Your task to perform on an android device: Empty the shopping cart on costco. Search for macbook on costco, select the first entry, and add it to the cart. Image 0: 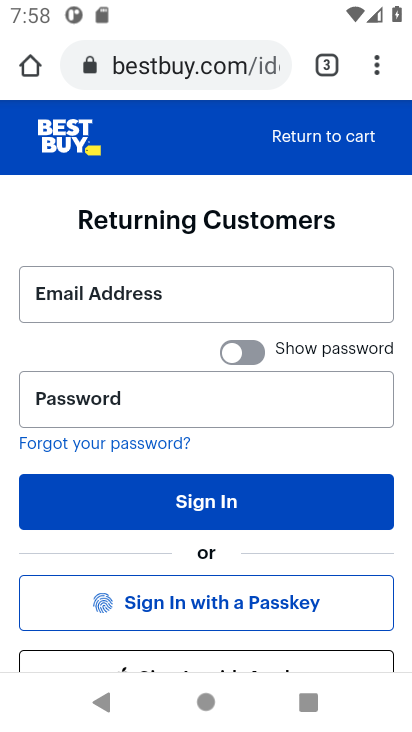
Step 0: click (222, 67)
Your task to perform on an android device: Empty the shopping cart on costco. Search for macbook on costco, select the first entry, and add it to the cart. Image 1: 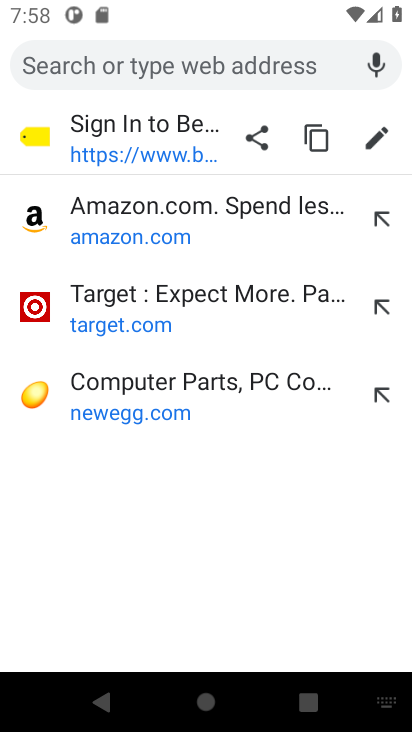
Step 1: type "costco"
Your task to perform on an android device: Empty the shopping cart on costco. Search for macbook on costco, select the first entry, and add it to the cart. Image 2: 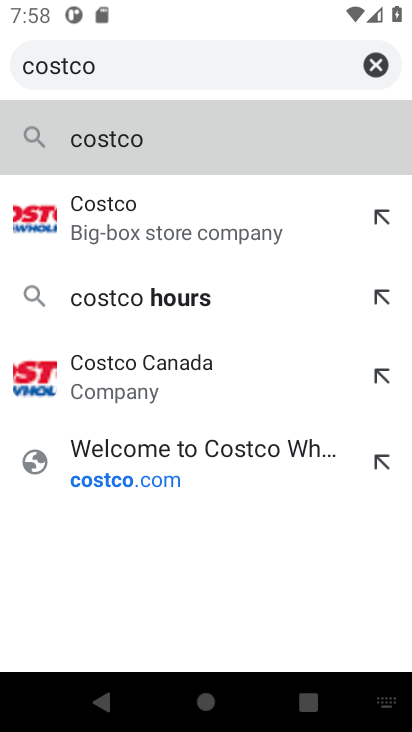
Step 2: click (100, 148)
Your task to perform on an android device: Empty the shopping cart on costco. Search for macbook on costco, select the first entry, and add it to the cart. Image 3: 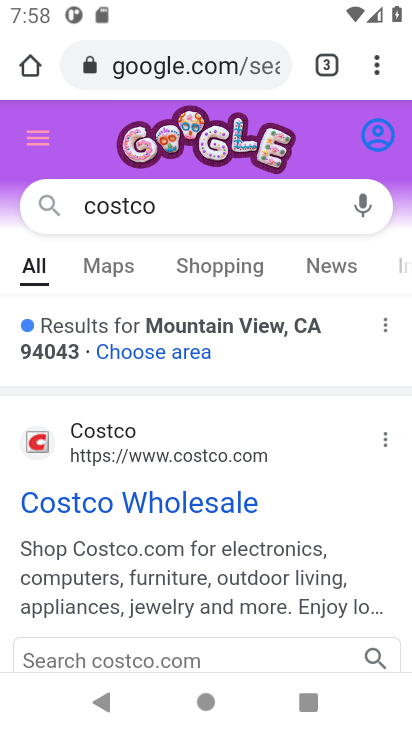
Step 3: click (73, 500)
Your task to perform on an android device: Empty the shopping cart on costco. Search for macbook on costco, select the first entry, and add it to the cart. Image 4: 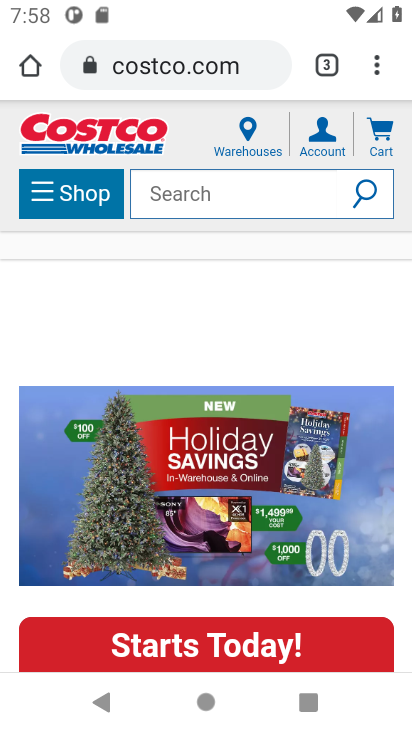
Step 4: click (47, 419)
Your task to perform on an android device: Empty the shopping cart on costco. Search for macbook on costco, select the first entry, and add it to the cart. Image 5: 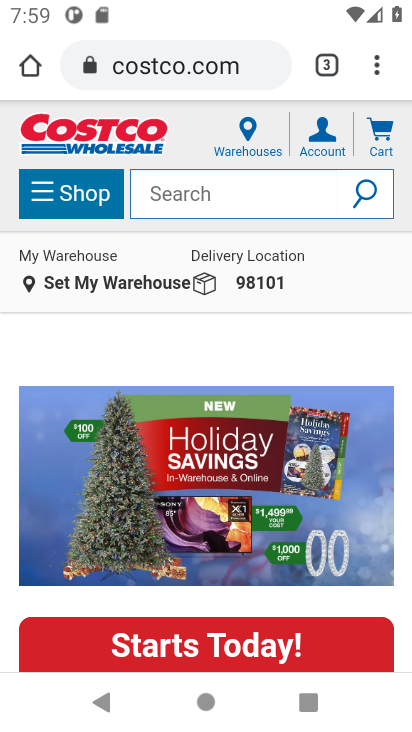
Step 5: click (382, 132)
Your task to perform on an android device: Empty the shopping cart on costco. Search for macbook on costco, select the first entry, and add it to the cart. Image 6: 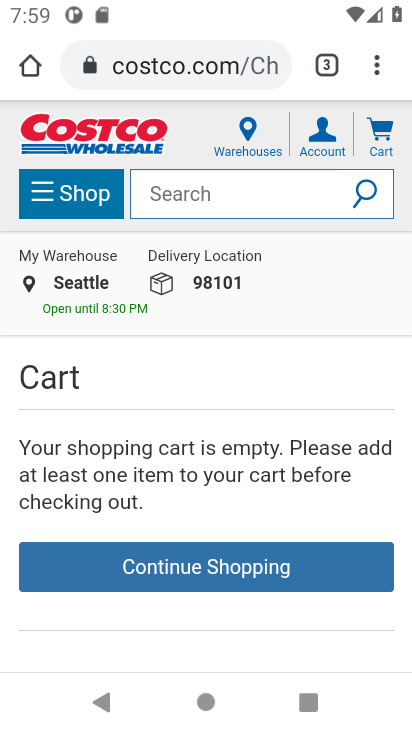
Step 6: click (247, 197)
Your task to perform on an android device: Empty the shopping cart on costco. Search for macbook on costco, select the first entry, and add it to the cart. Image 7: 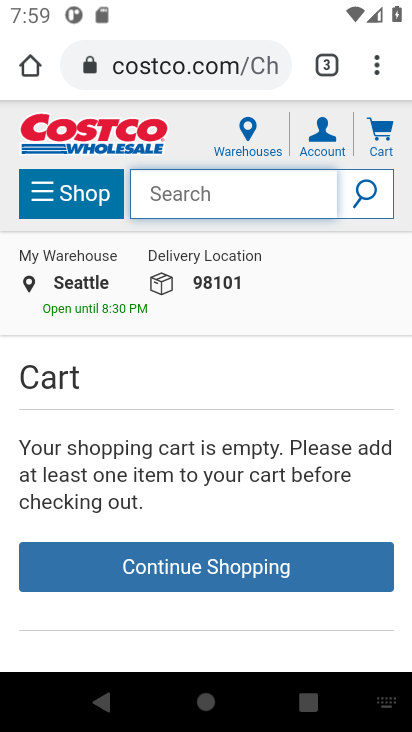
Step 7: type "macbook"
Your task to perform on an android device: Empty the shopping cart on costco. Search for macbook on costco, select the first entry, and add it to the cart. Image 8: 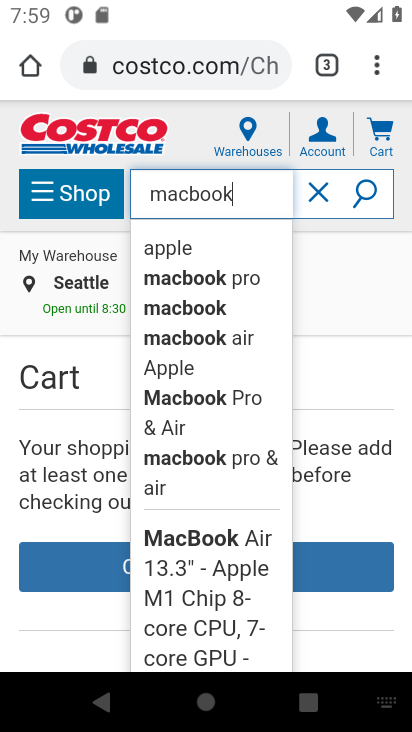
Step 8: press enter
Your task to perform on an android device: Empty the shopping cart on costco. Search for macbook on costco, select the first entry, and add it to the cart. Image 9: 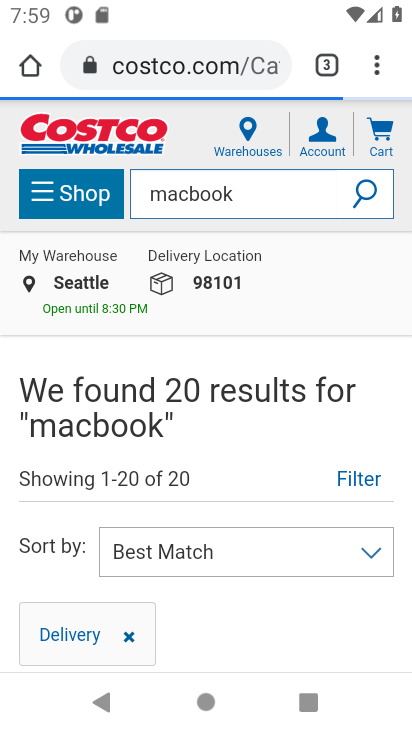
Step 9: drag from (248, 426) to (255, 87)
Your task to perform on an android device: Empty the shopping cart on costco. Search for macbook on costco, select the first entry, and add it to the cart. Image 10: 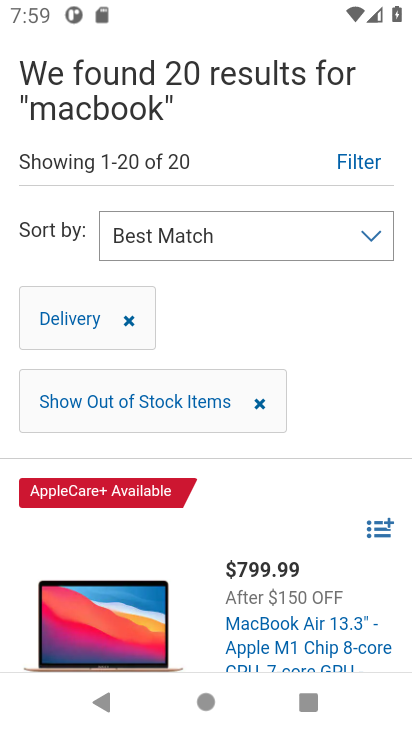
Step 10: drag from (303, 502) to (311, 290)
Your task to perform on an android device: Empty the shopping cart on costco. Search for macbook on costco, select the first entry, and add it to the cart. Image 11: 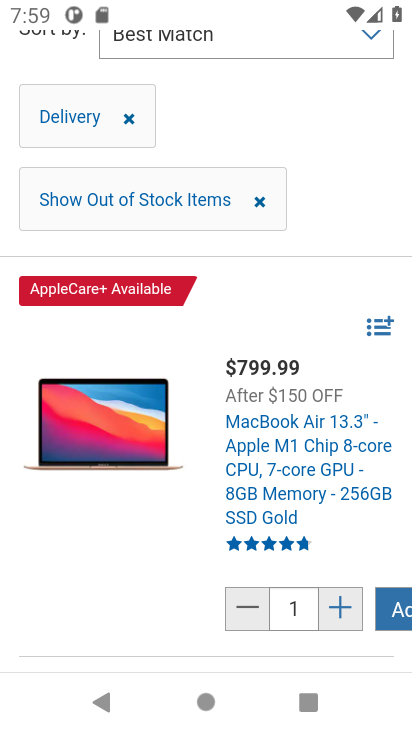
Step 11: click (129, 411)
Your task to perform on an android device: Empty the shopping cart on costco. Search for macbook on costco, select the first entry, and add it to the cart. Image 12: 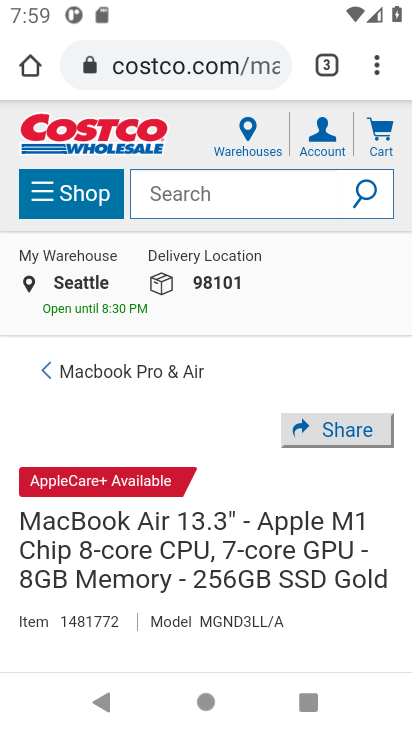
Step 12: drag from (328, 599) to (216, 0)
Your task to perform on an android device: Empty the shopping cart on costco. Search for macbook on costco, select the first entry, and add it to the cart. Image 13: 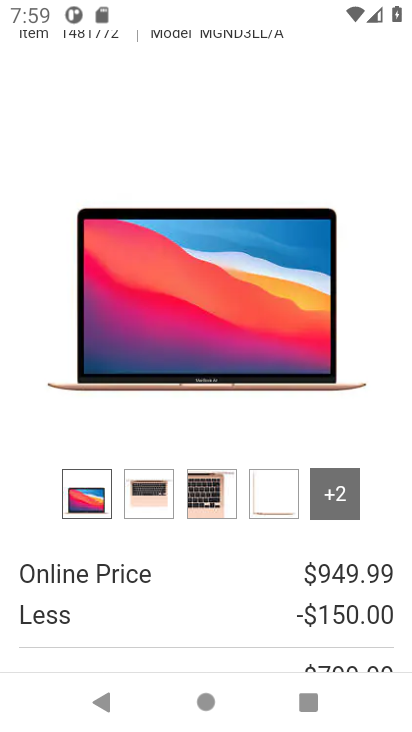
Step 13: drag from (217, 625) to (235, 33)
Your task to perform on an android device: Empty the shopping cart on costco. Search for macbook on costco, select the first entry, and add it to the cart. Image 14: 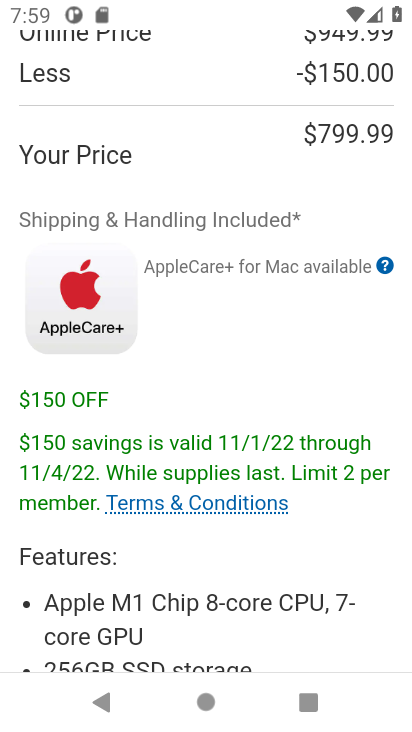
Step 14: drag from (286, 563) to (247, 23)
Your task to perform on an android device: Empty the shopping cart on costco. Search for macbook on costco, select the first entry, and add it to the cart. Image 15: 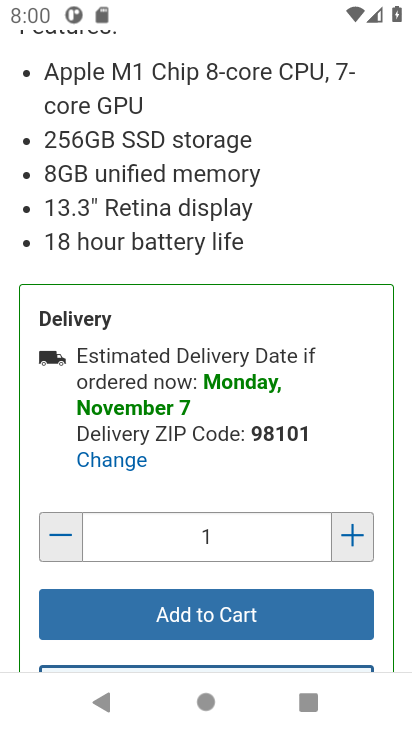
Step 15: click (198, 617)
Your task to perform on an android device: Empty the shopping cart on costco. Search for macbook on costco, select the first entry, and add it to the cart. Image 16: 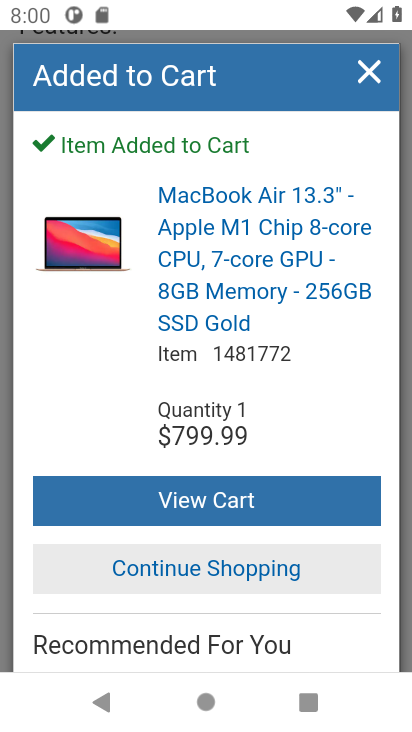
Step 16: task complete